Your task to perform on an android device: Open accessibility settings Image 0: 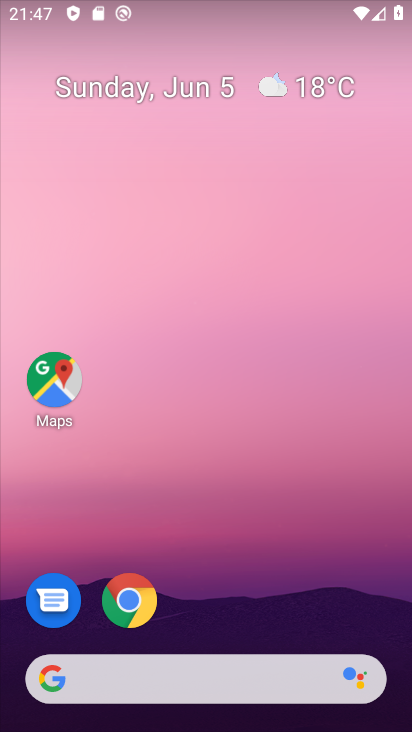
Step 0: click (255, 231)
Your task to perform on an android device: Open accessibility settings Image 1: 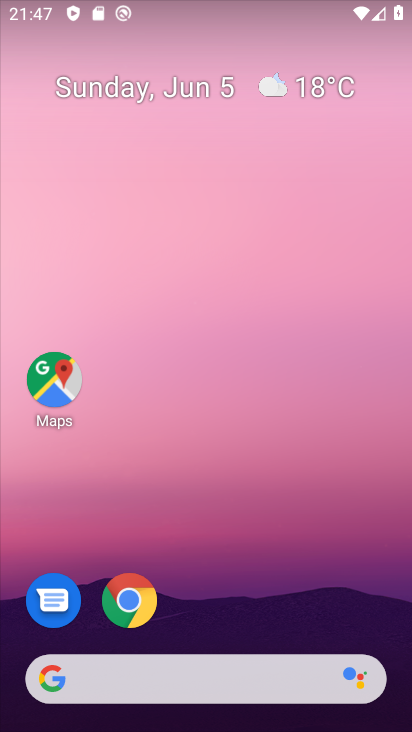
Step 1: drag from (260, 523) to (196, 145)
Your task to perform on an android device: Open accessibility settings Image 2: 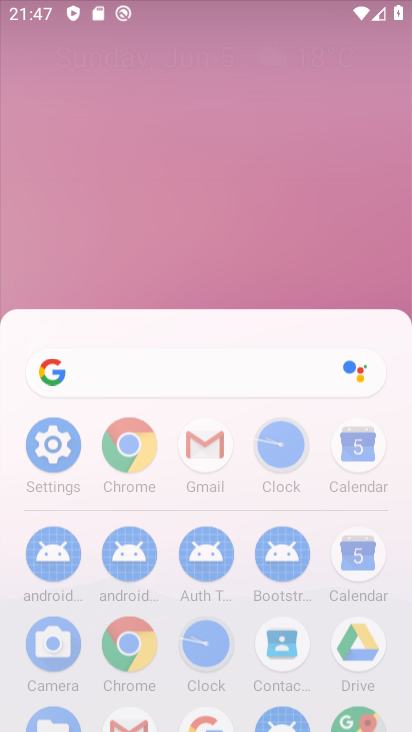
Step 2: click (195, 134)
Your task to perform on an android device: Open accessibility settings Image 3: 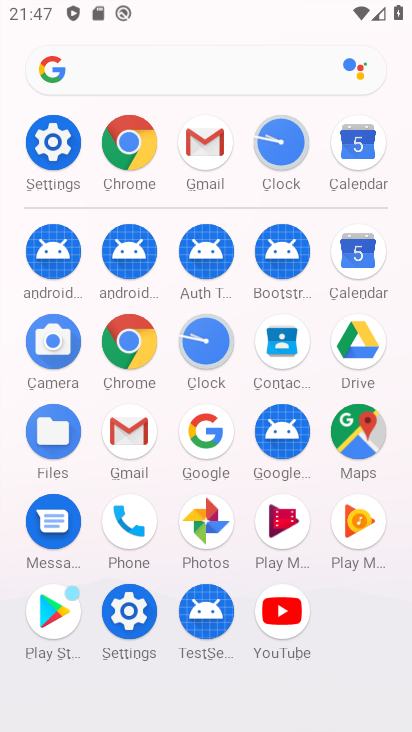
Step 3: click (50, 143)
Your task to perform on an android device: Open accessibility settings Image 4: 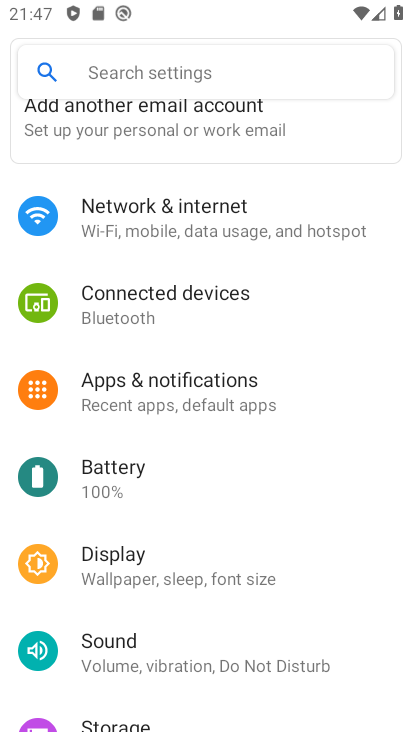
Step 4: drag from (242, 605) to (229, 109)
Your task to perform on an android device: Open accessibility settings Image 5: 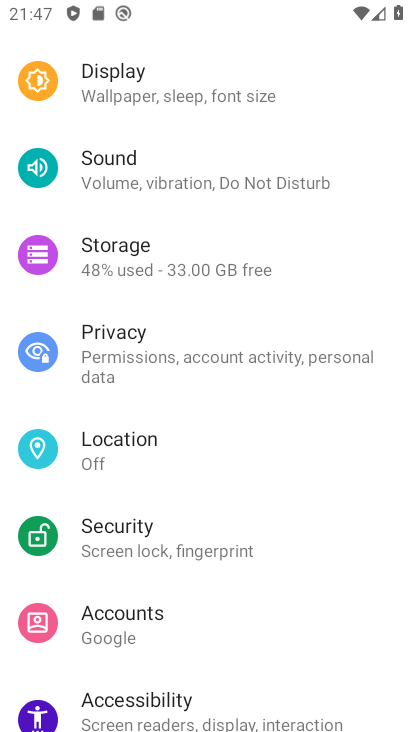
Step 5: drag from (199, 561) to (208, 207)
Your task to perform on an android device: Open accessibility settings Image 6: 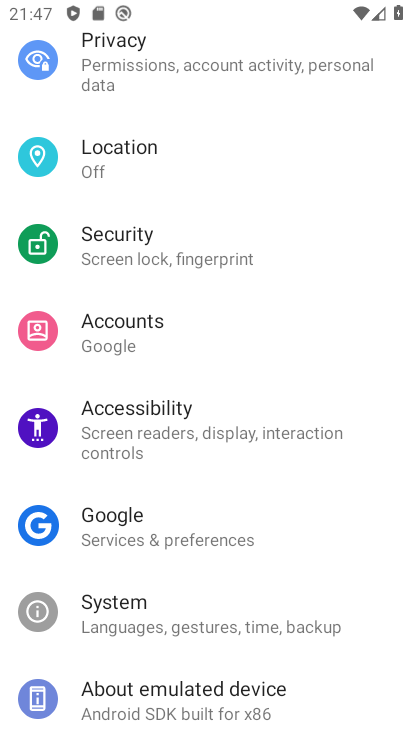
Step 6: click (215, 192)
Your task to perform on an android device: Open accessibility settings Image 7: 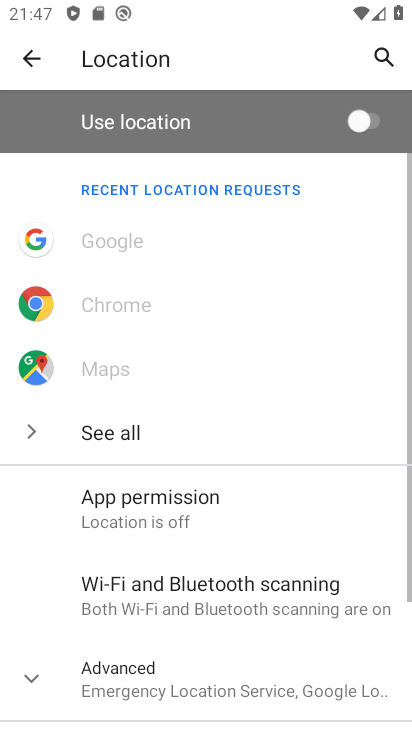
Step 7: click (33, 56)
Your task to perform on an android device: Open accessibility settings Image 8: 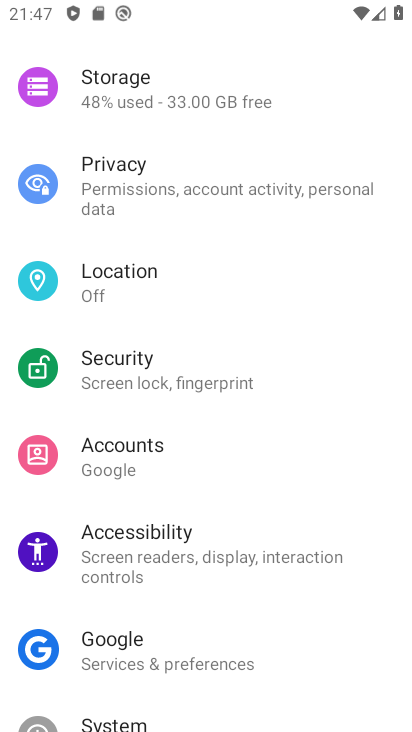
Step 8: click (201, 561)
Your task to perform on an android device: Open accessibility settings Image 9: 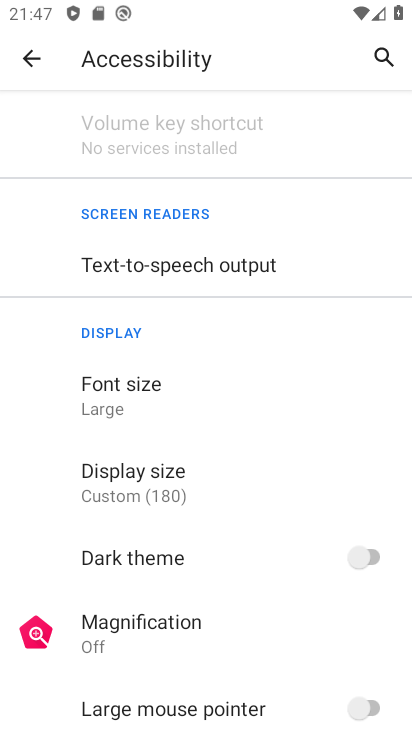
Step 9: task complete